Your task to perform on an android device: turn pop-ups off in chrome Image 0: 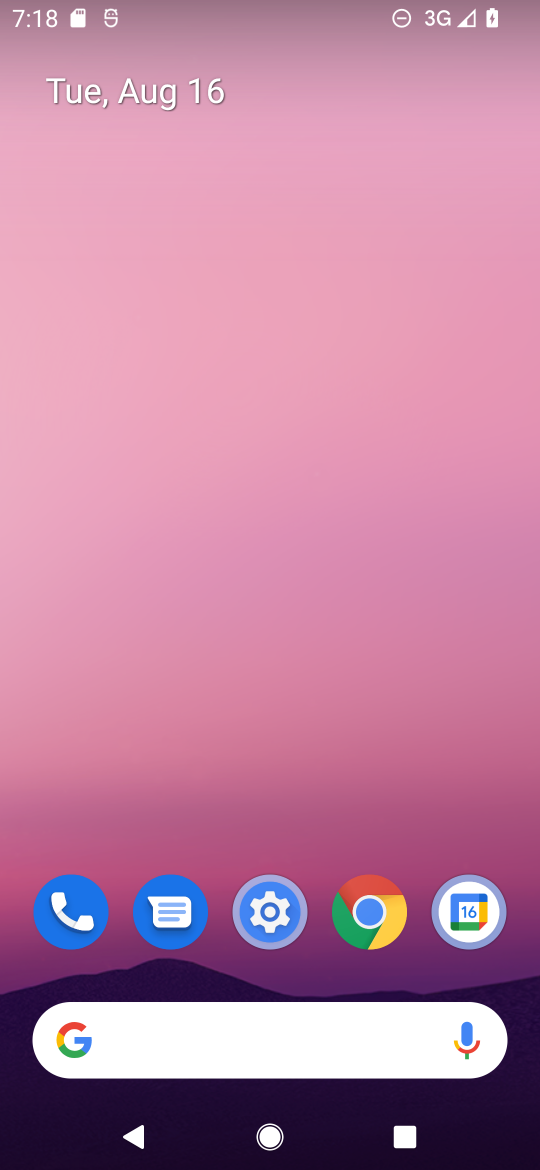
Step 0: click (372, 916)
Your task to perform on an android device: turn pop-ups off in chrome Image 1: 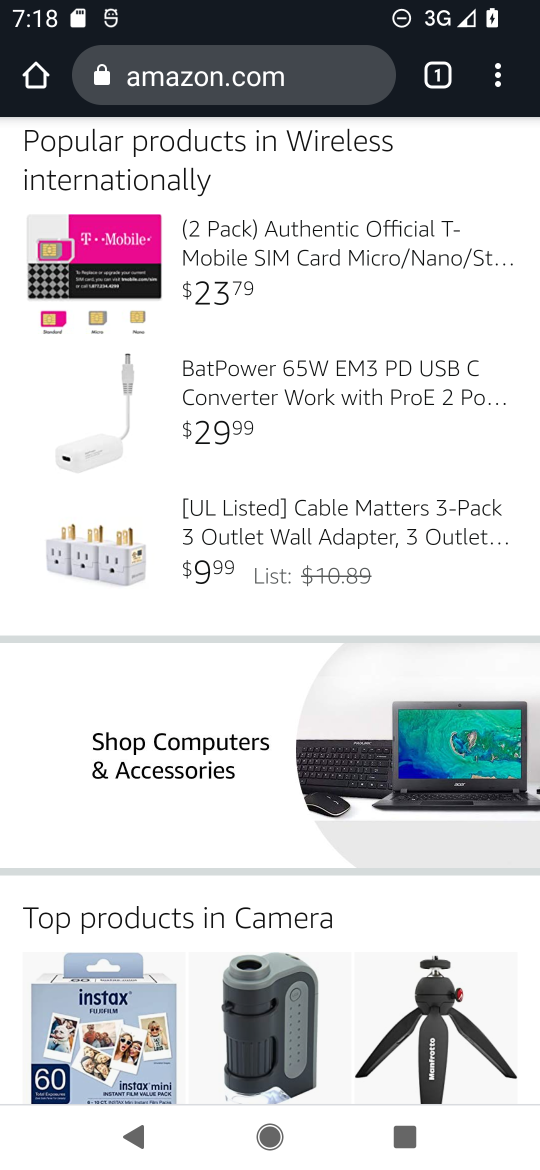
Step 1: click (491, 88)
Your task to perform on an android device: turn pop-ups off in chrome Image 2: 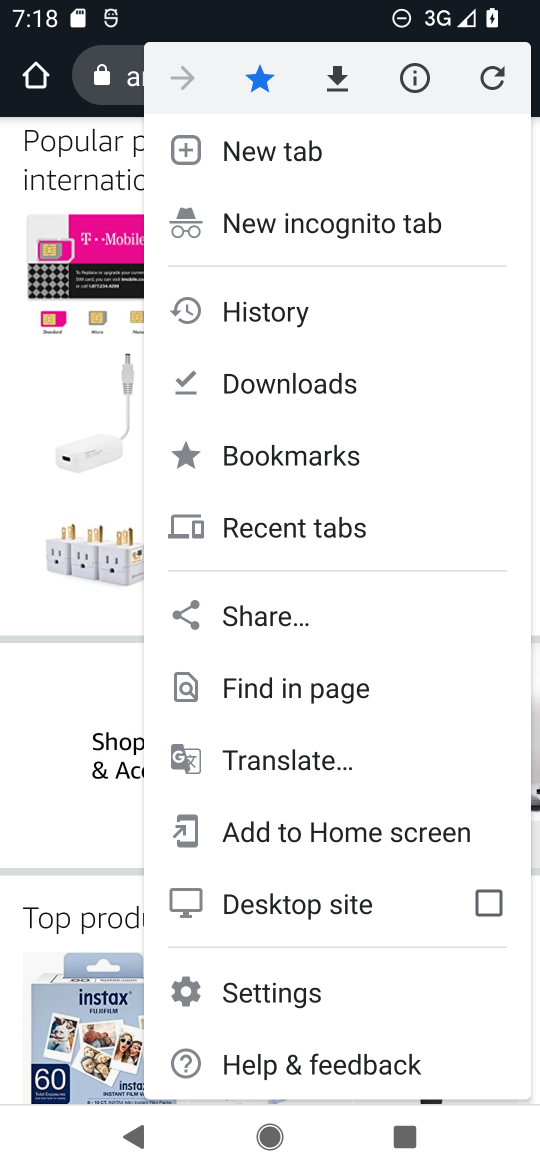
Step 2: click (268, 1000)
Your task to perform on an android device: turn pop-ups off in chrome Image 3: 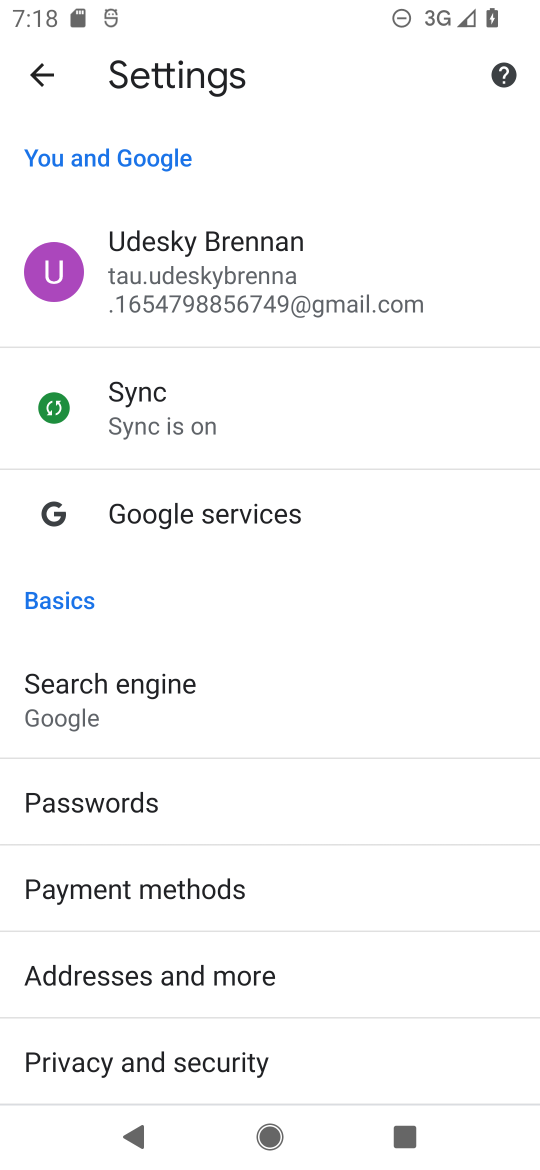
Step 3: drag from (431, 986) to (463, 279)
Your task to perform on an android device: turn pop-ups off in chrome Image 4: 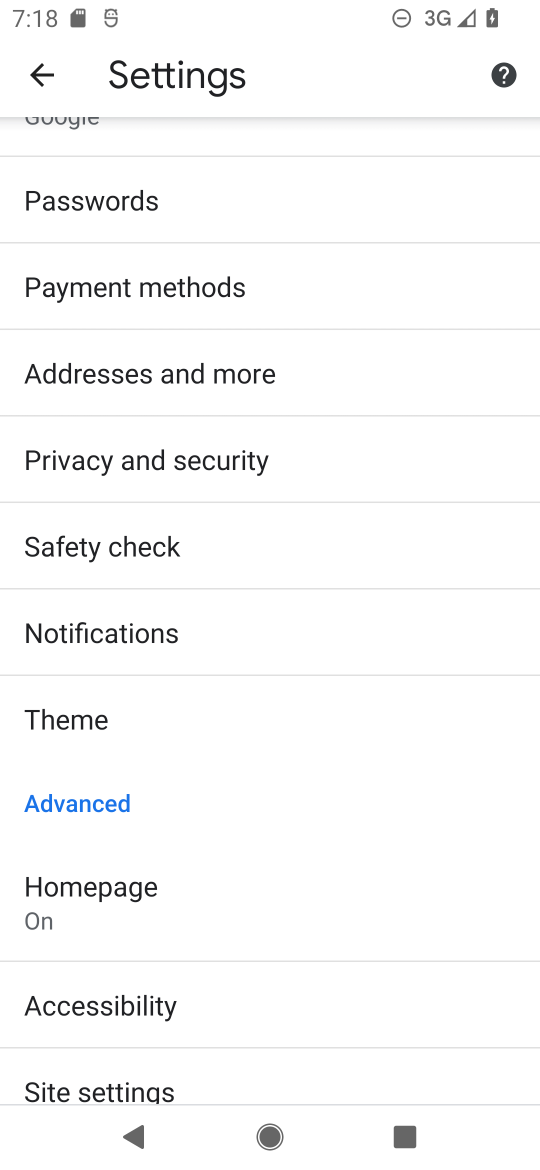
Step 4: drag from (317, 987) to (387, 531)
Your task to perform on an android device: turn pop-ups off in chrome Image 5: 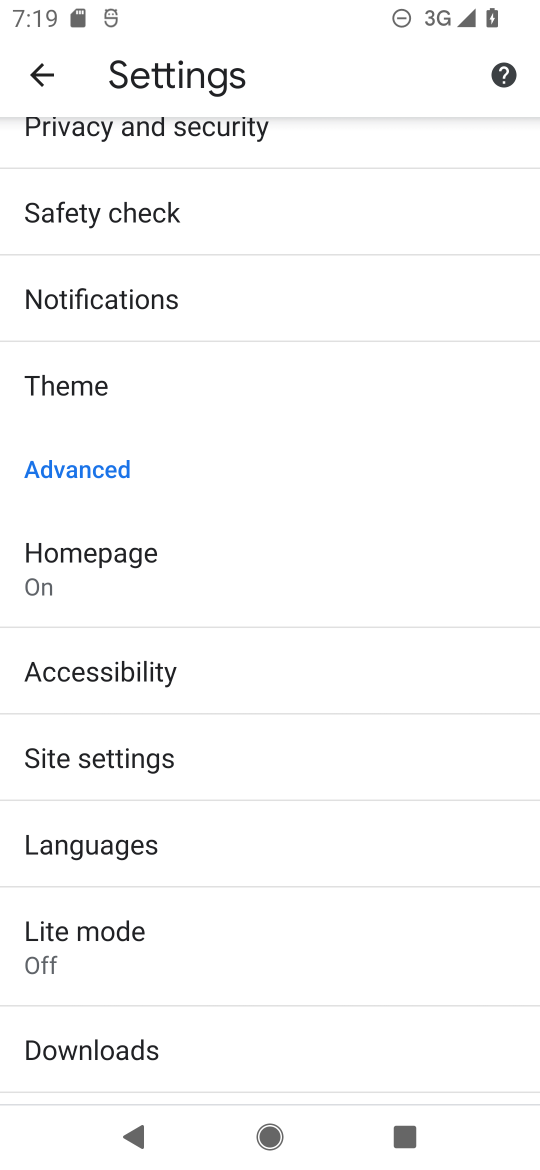
Step 5: click (79, 771)
Your task to perform on an android device: turn pop-ups off in chrome Image 6: 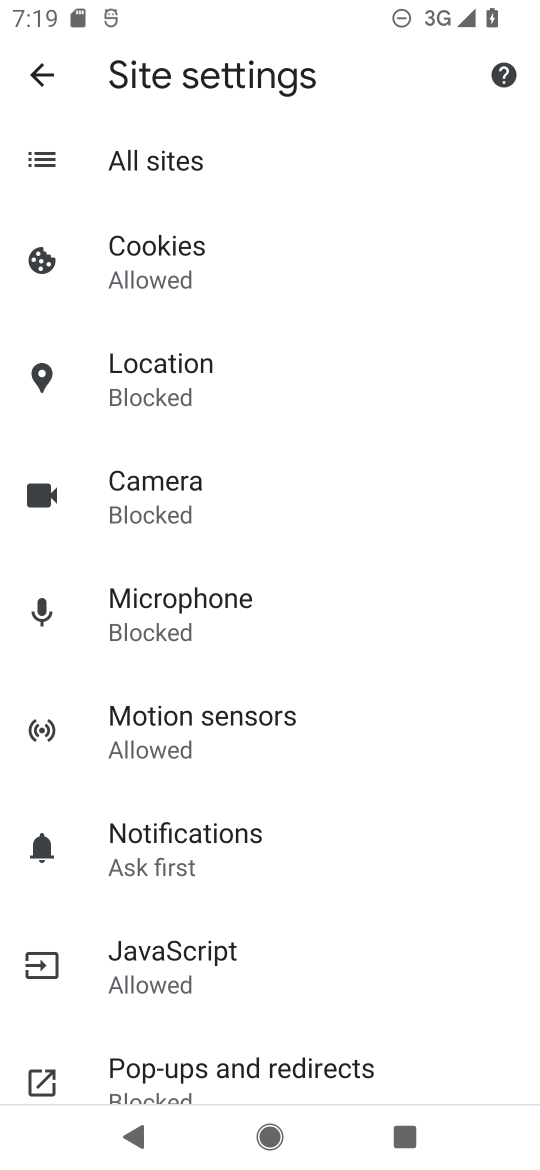
Step 6: drag from (413, 949) to (384, 496)
Your task to perform on an android device: turn pop-ups off in chrome Image 7: 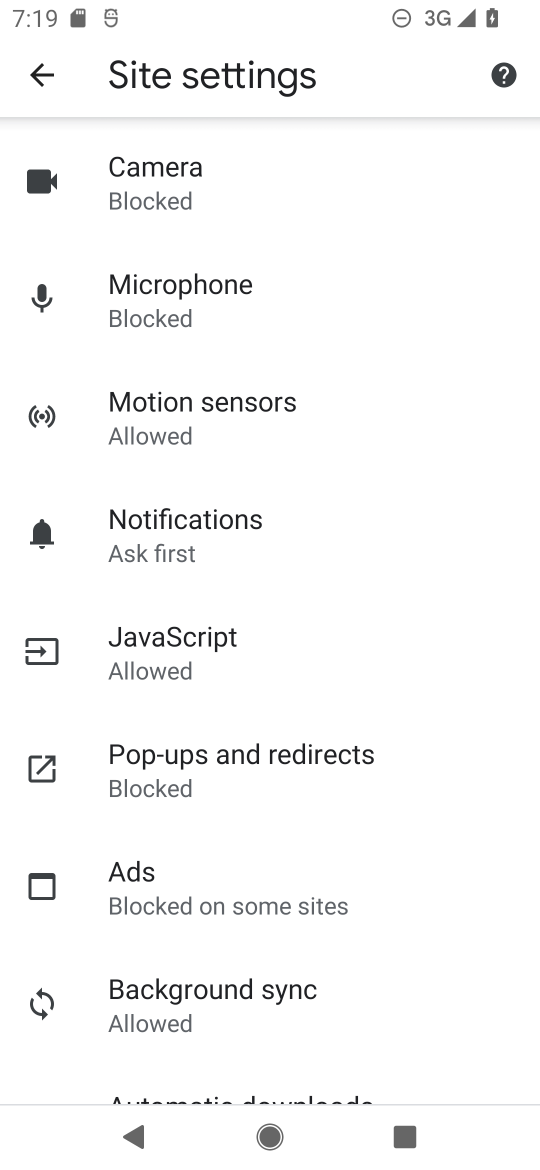
Step 7: click (143, 764)
Your task to perform on an android device: turn pop-ups off in chrome Image 8: 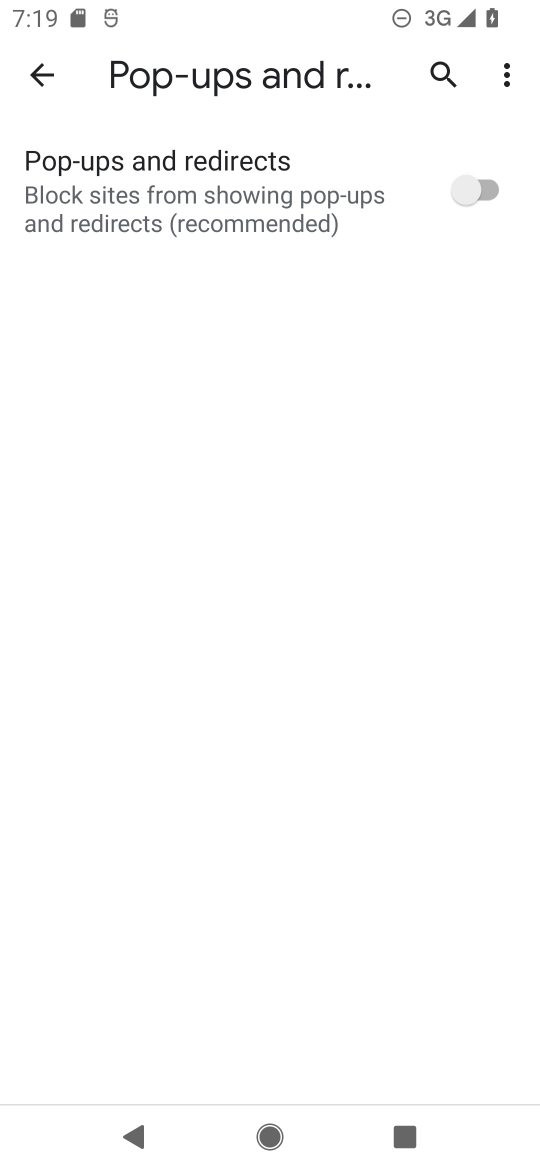
Step 8: task complete